Your task to perform on an android device: Open Chrome and go to the settings page Image 0: 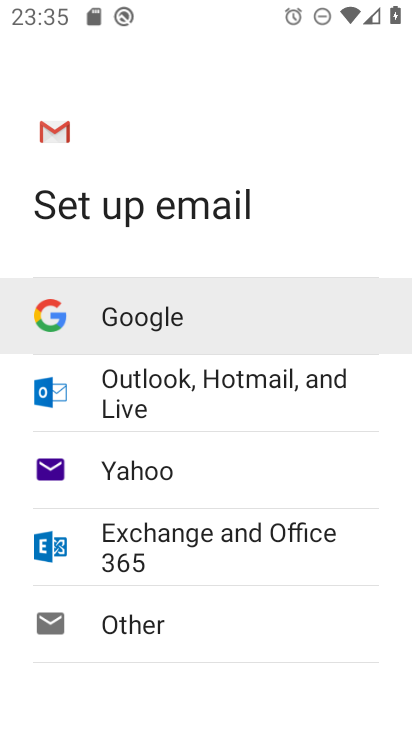
Step 0: press home button
Your task to perform on an android device: Open Chrome and go to the settings page Image 1: 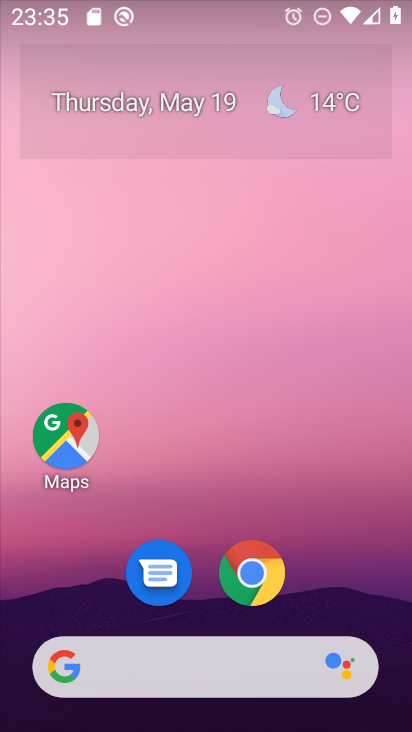
Step 1: click (260, 564)
Your task to perform on an android device: Open Chrome and go to the settings page Image 2: 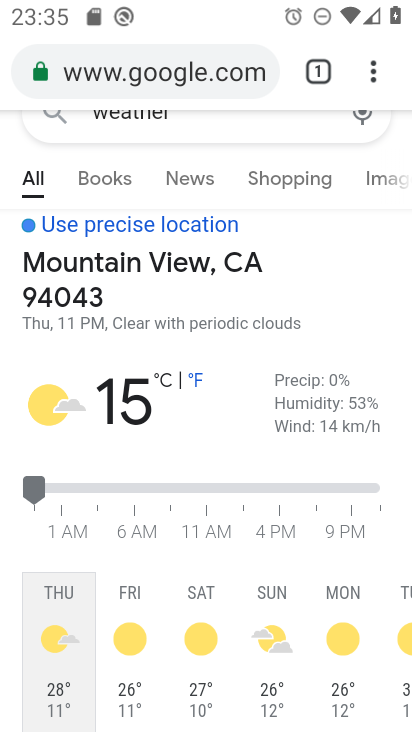
Step 2: click (386, 77)
Your task to perform on an android device: Open Chrome and go to the settings page Image 3: 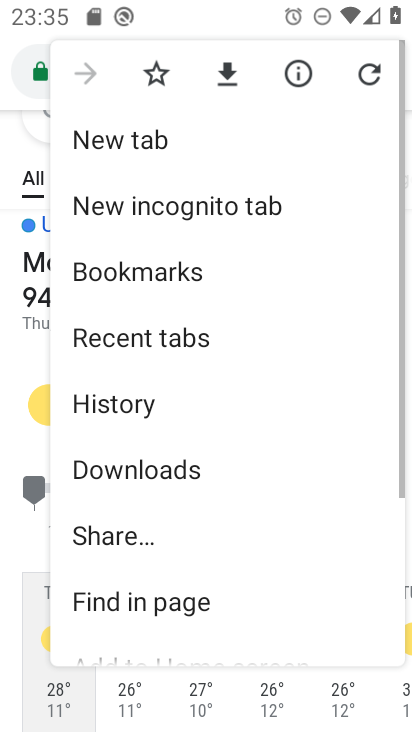
Step 3: drag from (205, 467) to (297, 94)
Your task to perform on an android device: Open Chrome and go to the settings page Image 4: 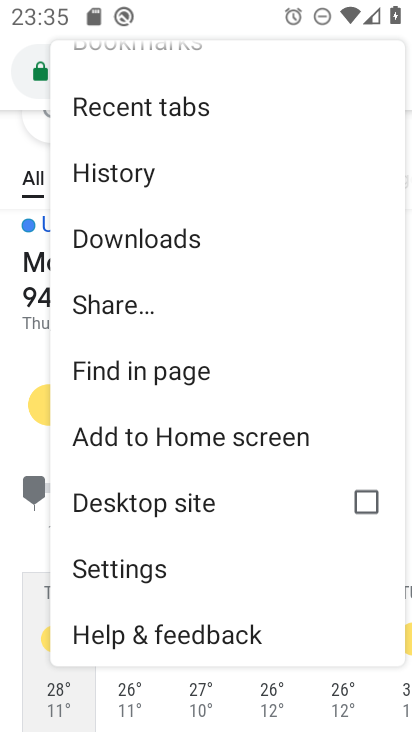
Step 4: click (148, 564)
Your task to perform on an android device: Open Chrome and go to the settings page Image 5: 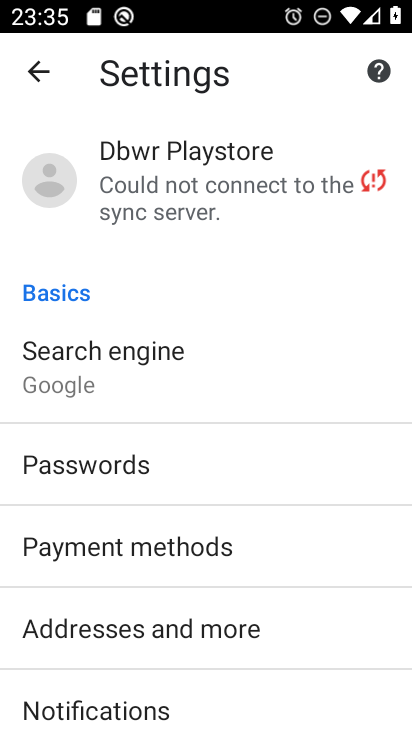
Step 5: task complete